Your task to perform on an android device: toggle priority inbox in the gmail app Image 0: 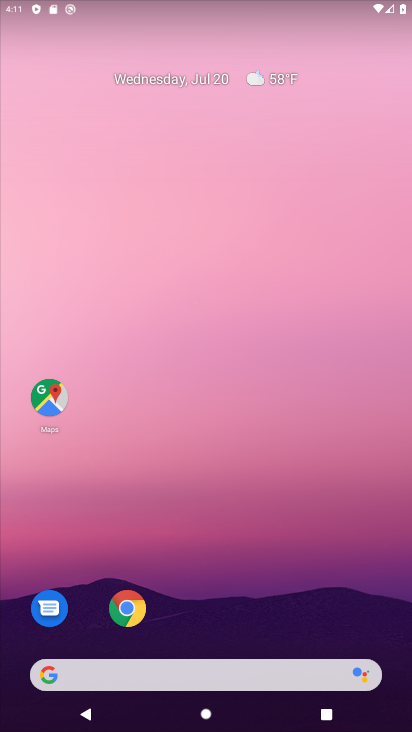
Step 0: drag from (213, 662) to (155, 120)
Your task to perform on an android device: toggle priority inbox in the gmail app Image 1: 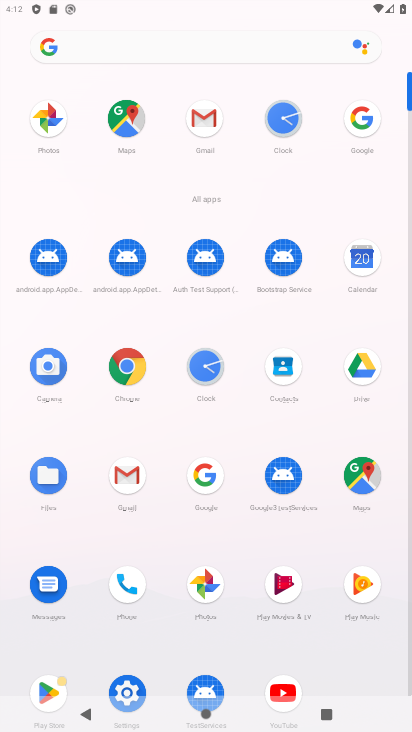
Step 1: click (130, 468)
Your task to perform on an android device: toggle priority inbox in the gmail app Image 2: 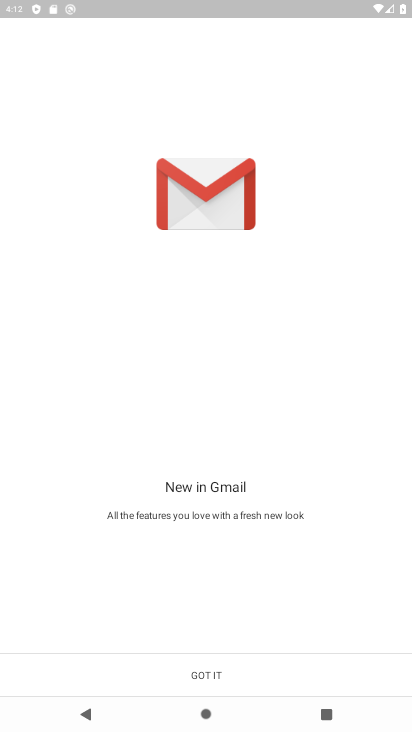
Step 2: click (206, 679)
Your task to perform on an android device: toggle priority inbox in the gmail app Image 3: 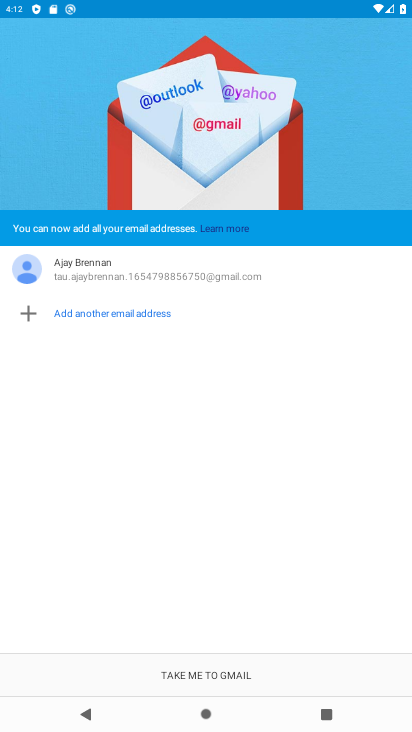
Step 3: click (209, 666)
Your task to perform on an android device: toggle priority inbox in the gmail app Image 4: 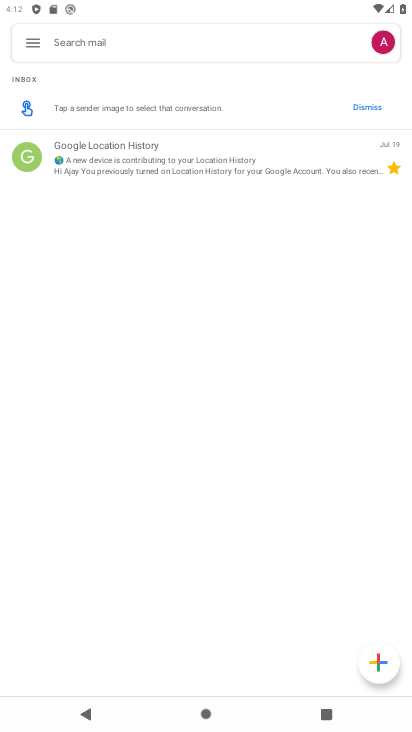
Step 4: click (34, 38)
Your task to perform on an android device: toggle priority inbox in the gmail app Image 5: 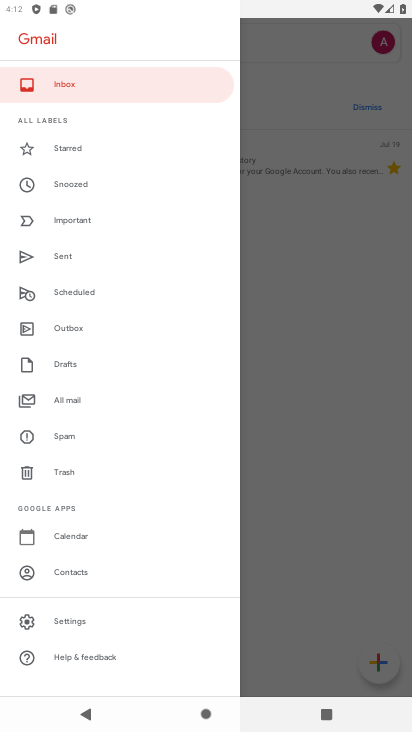
Step 5: click (92, 615)
Your task to perform on an android device: toggle priority inbox in the gmail app Image 6: 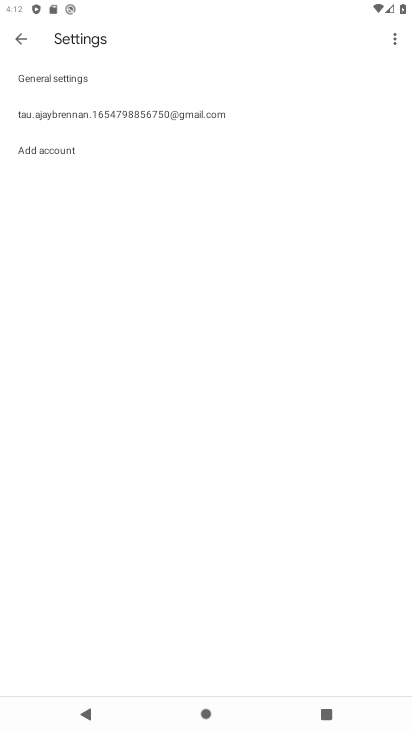
Step 6: click (55, 123)
Your task to perform on an android device: toggle priority inbox in the gmail app Image 7: 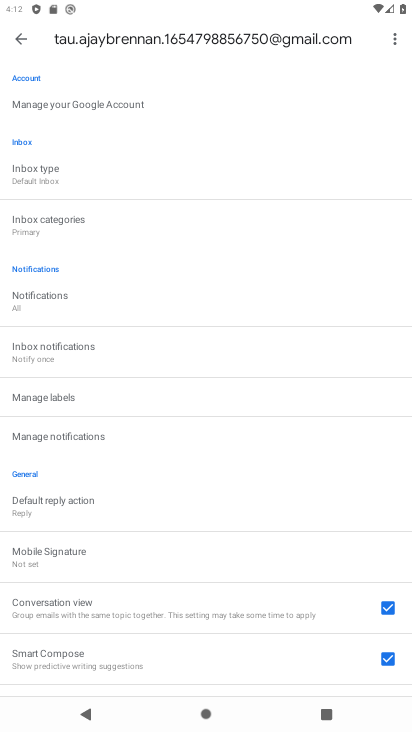
Step 7: click (33, 178)
Your task to perform on an android device: toggle priority inbox in the gmail app Image 8: 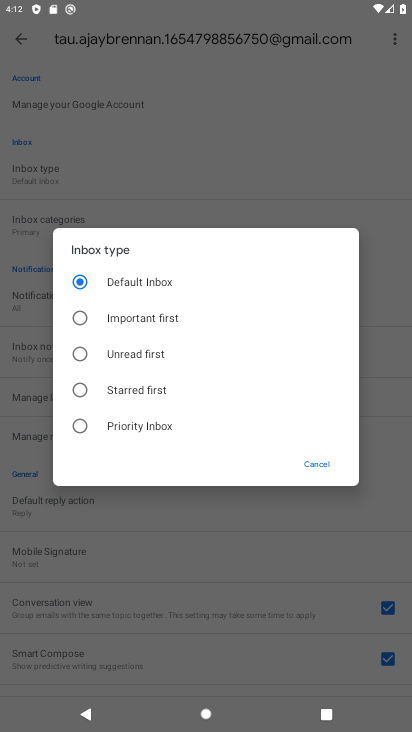
Step 8: click (141, 427)
Your task to perform on an android device: toggle priority inbox in the gmail app Image 9: 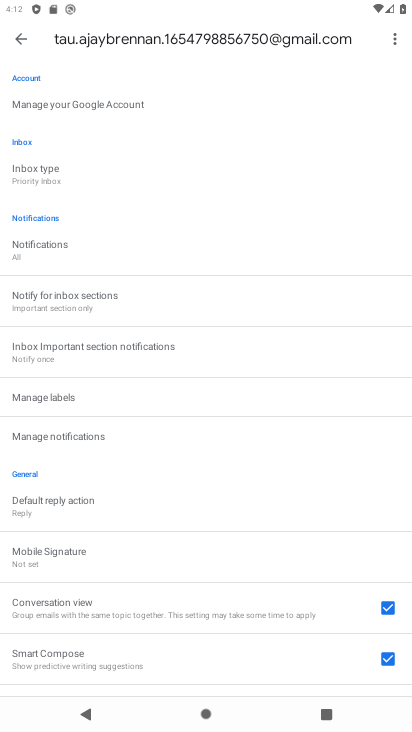
Step 9: task complete